Your task to perform on an android device: What is the news today? Image 0: 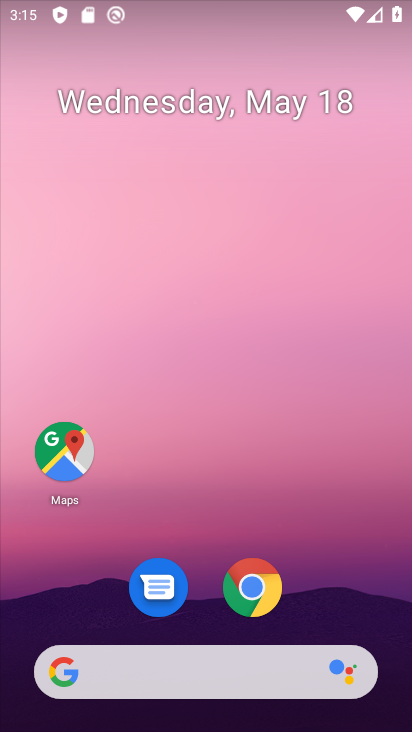
Step 0: click (253, 587)
Your task to perform on an android device: What is the news today? Image 1: 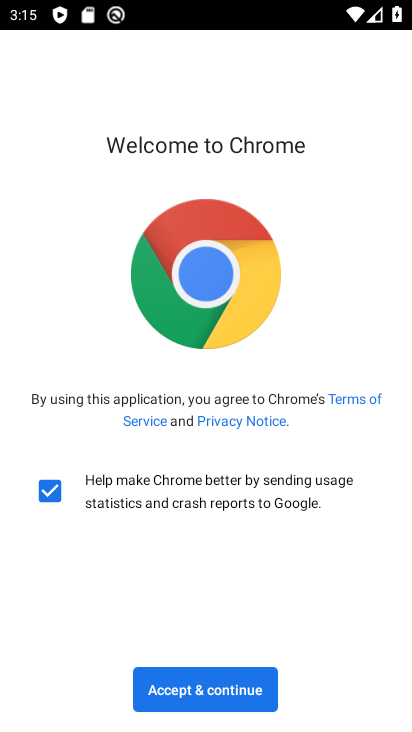
Step 1: click (225, 687)
Your task to perform on an android device: What is the news today? Image 2: 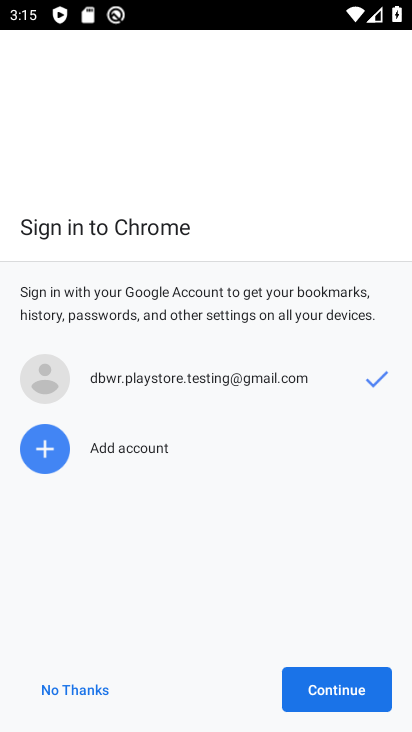
Step 2: click (318, 687)
Your task to perform on an android device: What is the news today? Image 3: 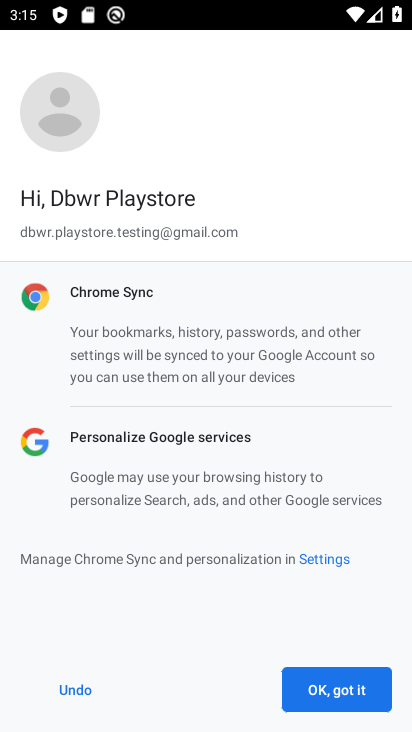
Step 3: click (319, 684)
Your task to perform on an android device: What is the news today? Image 4: 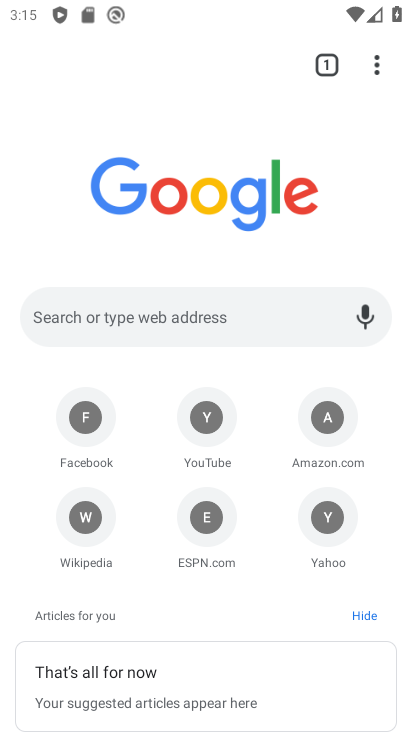
Step 4: click (205, 54)
Your task to perform on an android device: What is the news today? Image 5: 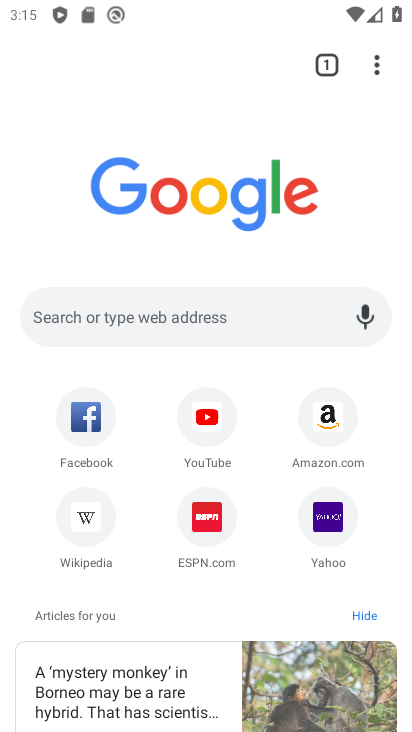
Step 5: click (190, 308)
Your task to perform on an android device: What is the news today? Image 6: 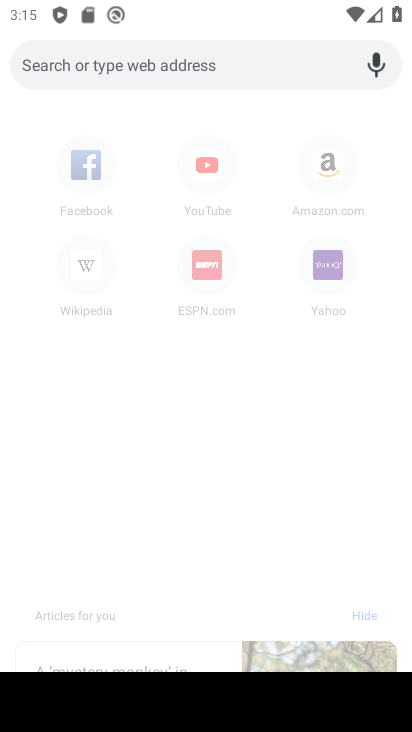
Step 6: type "news"
Your task to perform on an android device: What is the news today? Image 7: 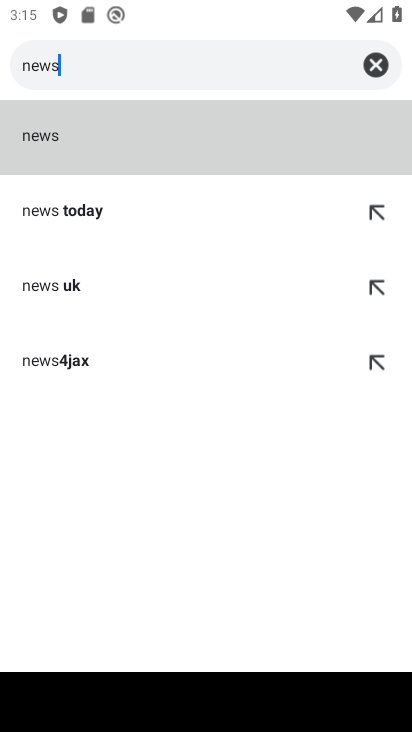
Step 7: click (46, 130)
Your task to perform on an android device: What is the news today? Image 8: 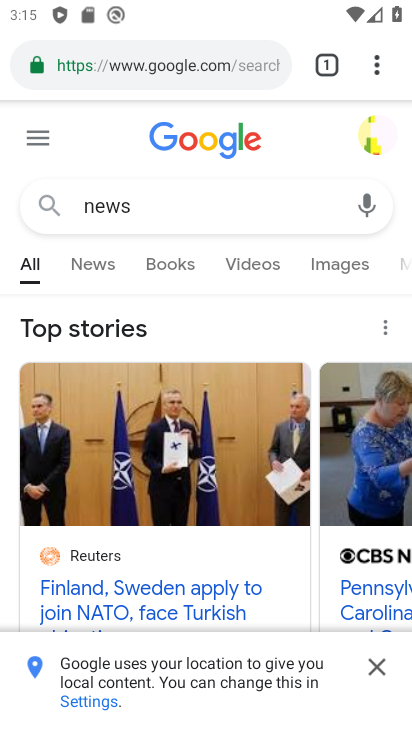
Step 8: click (109, 260)
Your task to perform on an android device: What is the news today? Image 9: 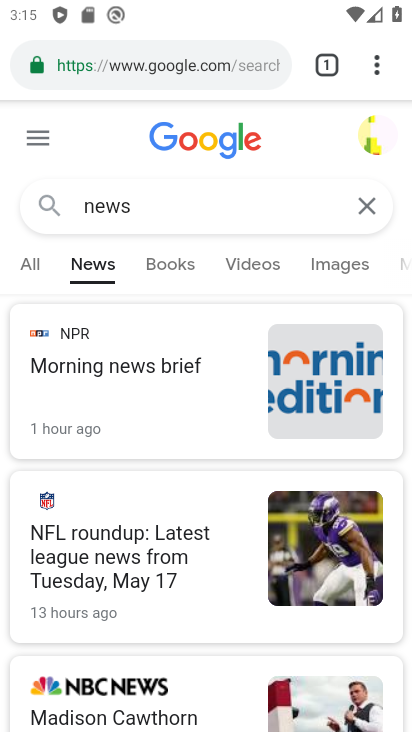
Step 9: task complete